Your task to perform on an android device: set the timer Image 0: 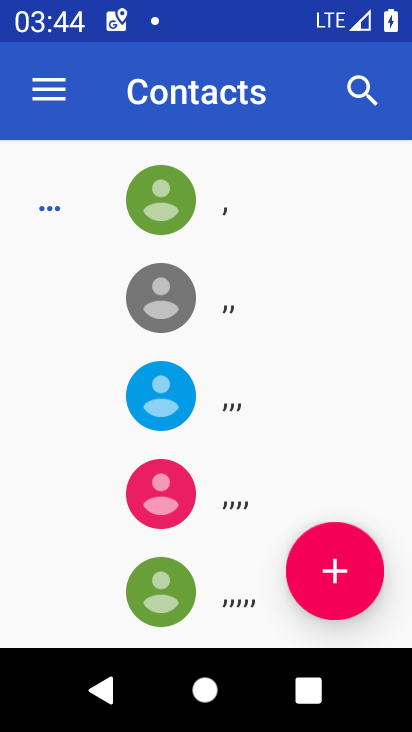
Step 0: press home button
Your task to perform on an android device: set the timer Image 1: 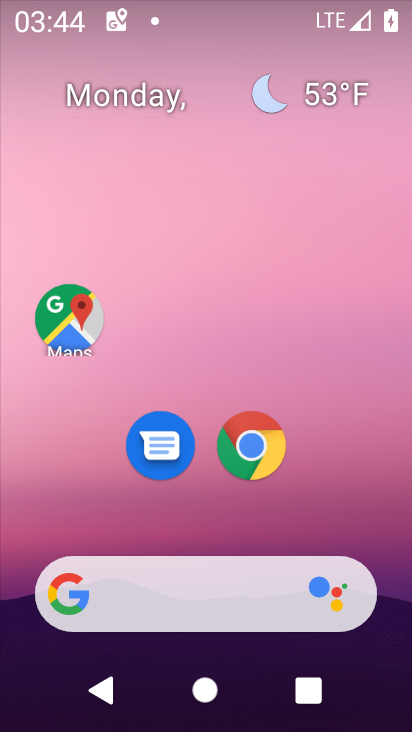
Step 1: drag from (190, 536) to (205, 99)
Your task to perform on an android device: set the timer Image 2: 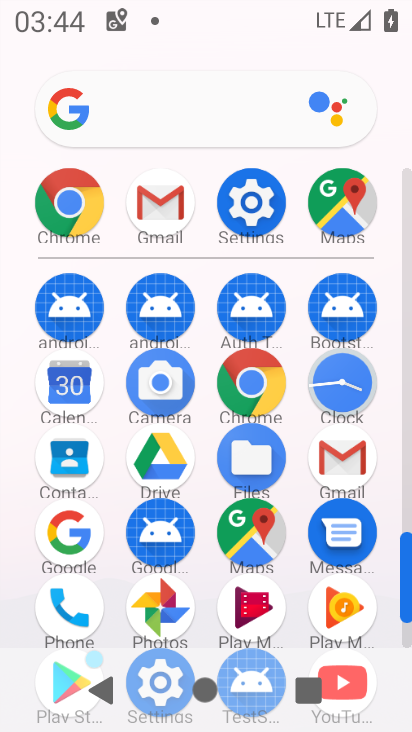
Step 2: click (328, 381)
Your task to perform on an android device: set the timer Image 3: 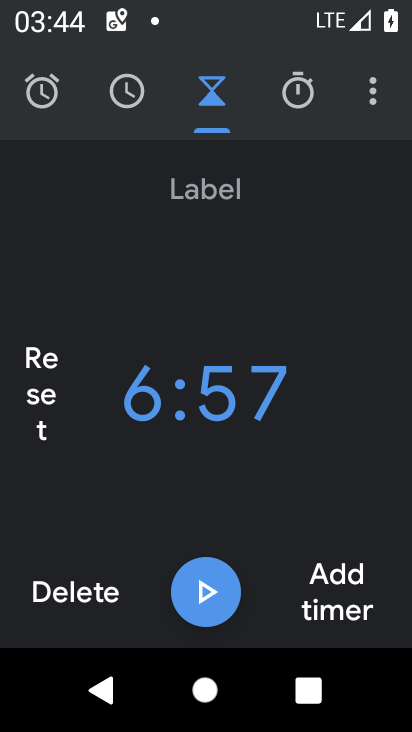
Step 3: click (85, 600)
Your task to perform on an android device: set the timer Image 4: 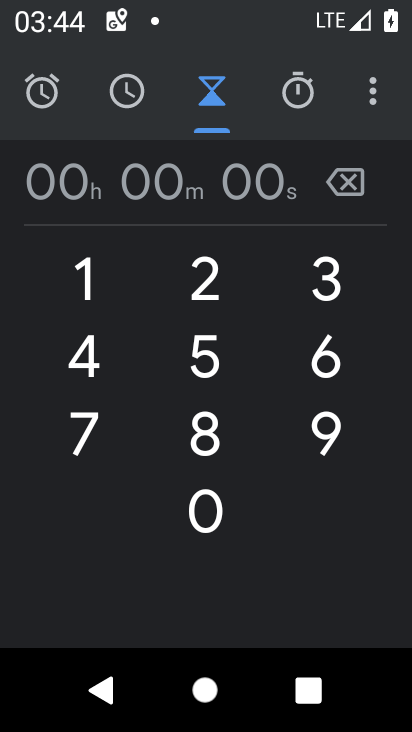
Step 4: click (92, 423)
Your task to perform on an android device: set the timer Image 5: 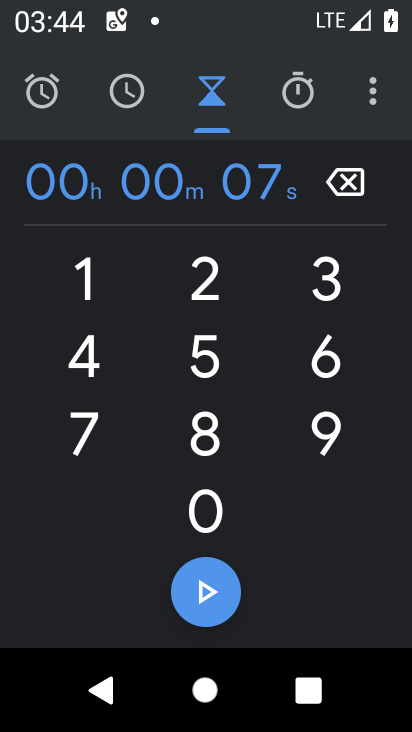
Step 5: click (189, 344)
Your task to perform on an android device: set the timer Image 6: 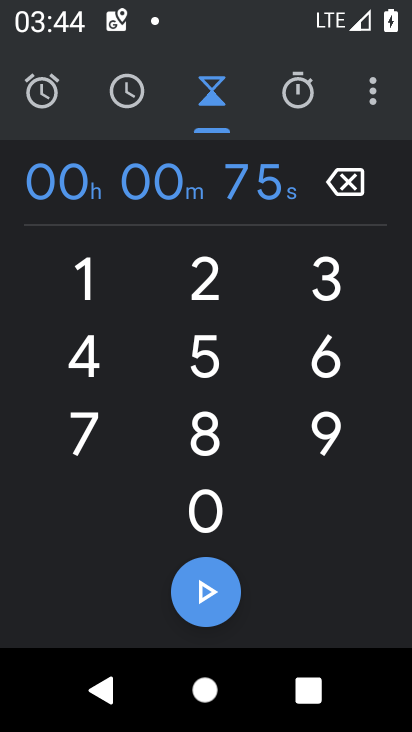
Step 6: click (311, 430)
Your task to perform on an android device: set the timer Image 7: 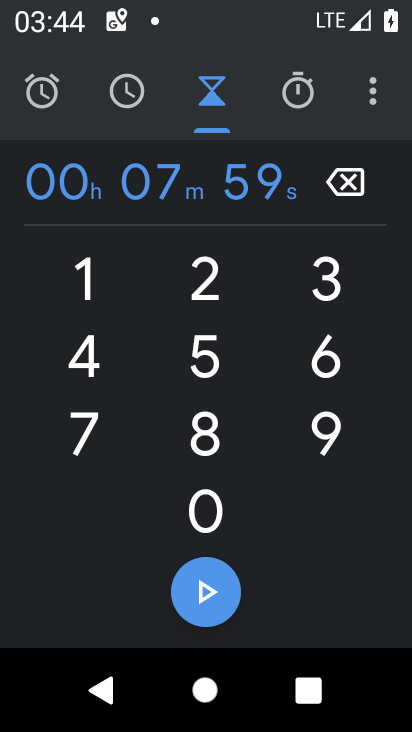
Step 7: click (217, 590)
Your task to perform on an android device: set the timer Image 8: 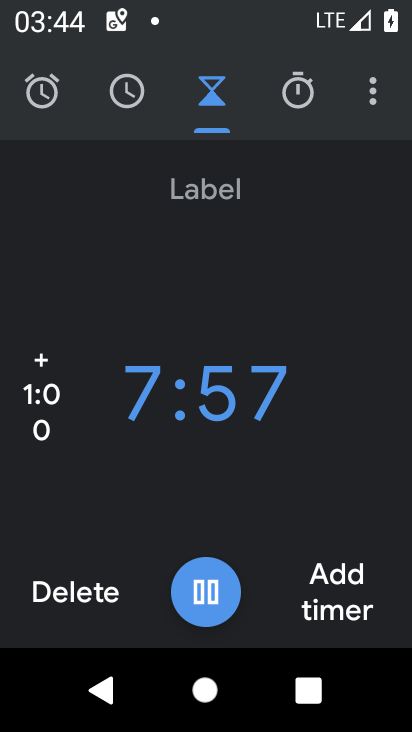
Step 8: task complete